Your task to perform on an android device: Open the phone app and click the voicemail tab. Image 0: 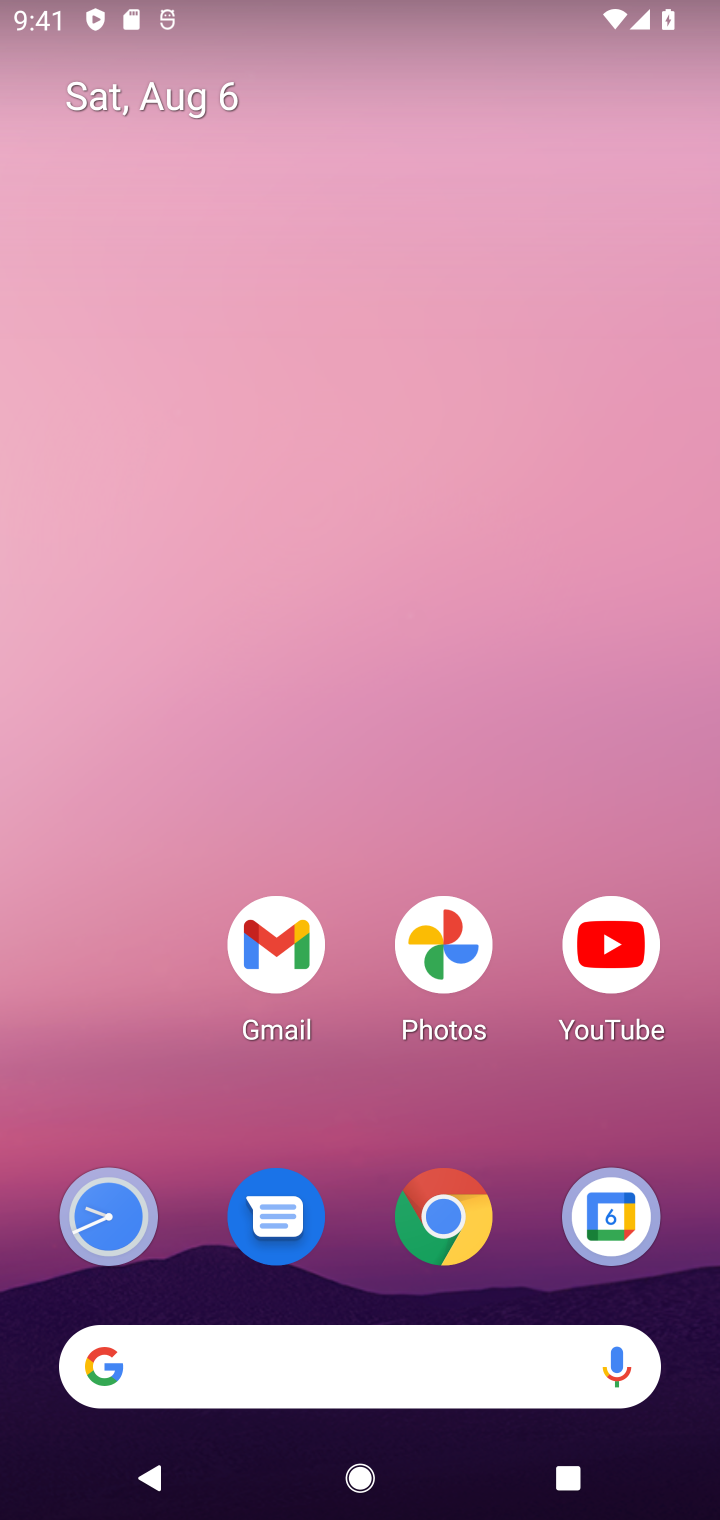
Step 0: drag from (429, 1269) to (482, 568)
Your task to perform on an android device: Open the phone app and click the voicemail tab. Image 1: 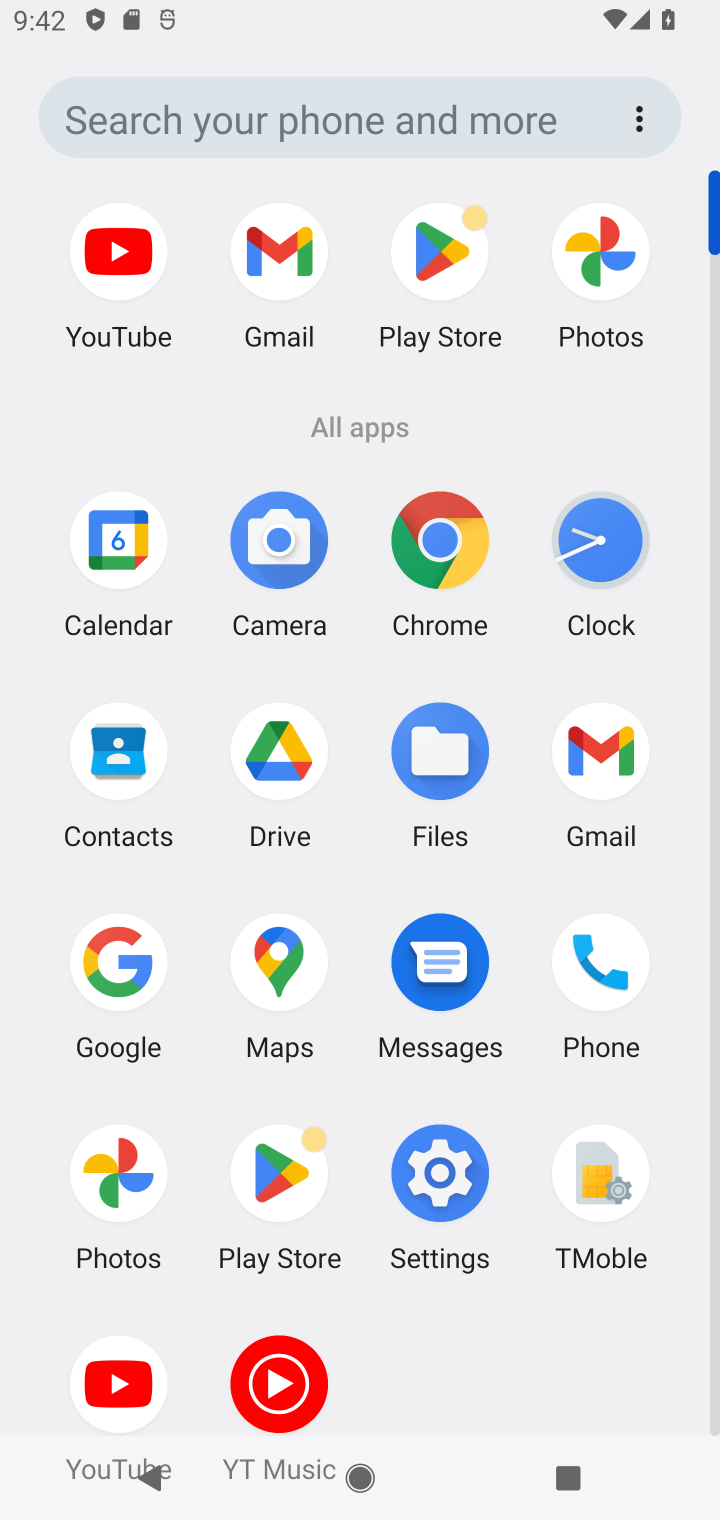
Step 1: click (606, 933)
Your task to perform on an android device: Open the phone app and click the voicemail tab. Image 2: 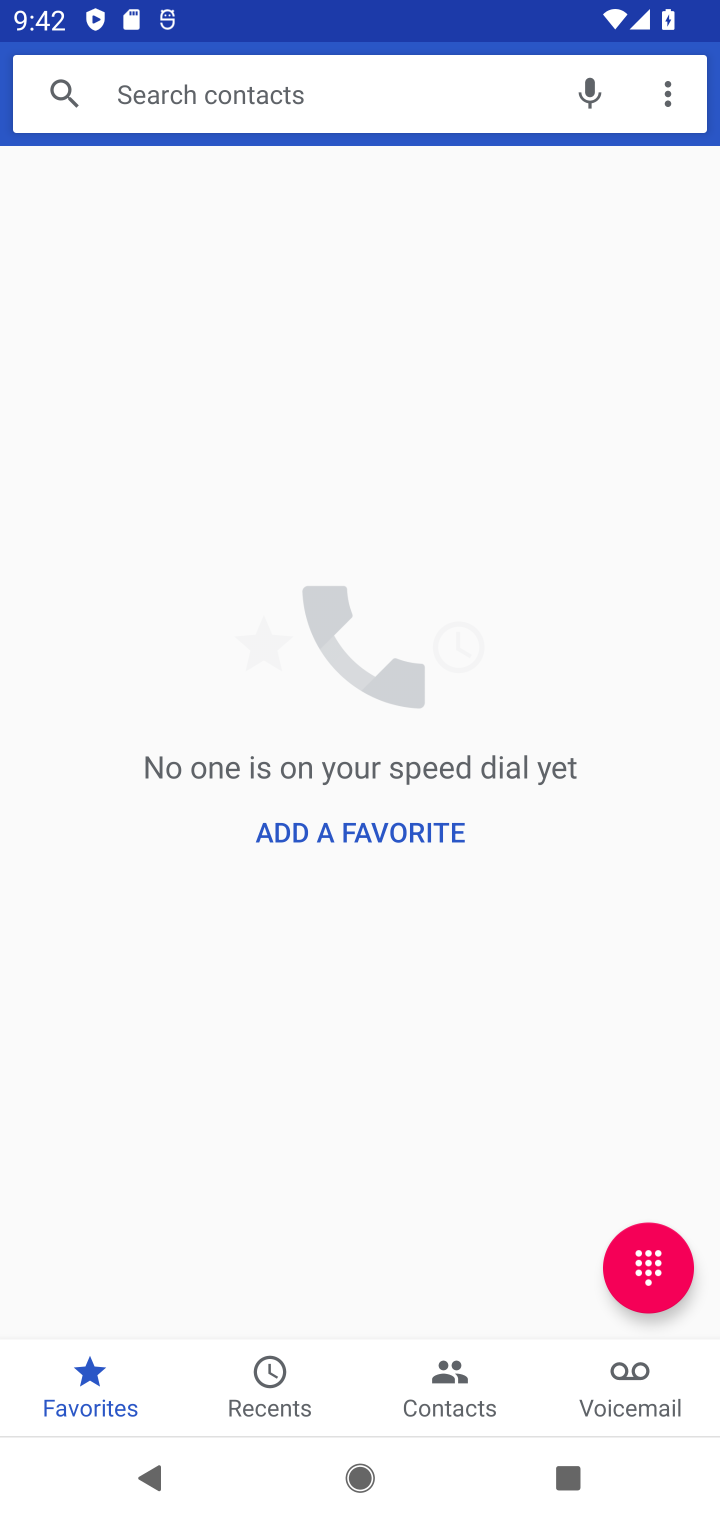
Step 2: click (616, 1387)
Your task to perform on an android device: Open the phone app and click the voicemail tab. Image 3: 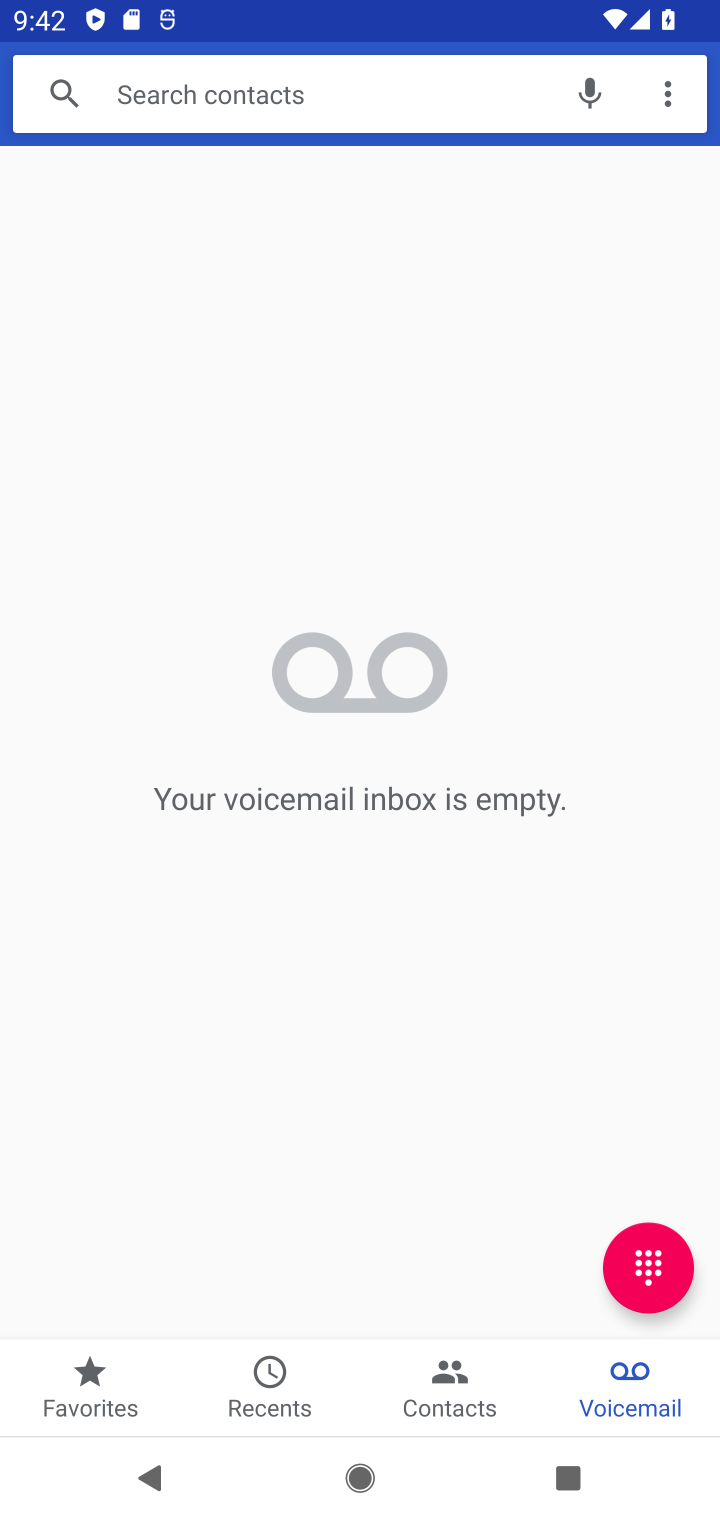
Step 3: task complete